Your task to perform on an android device: open chrome privacy settings Image 0: 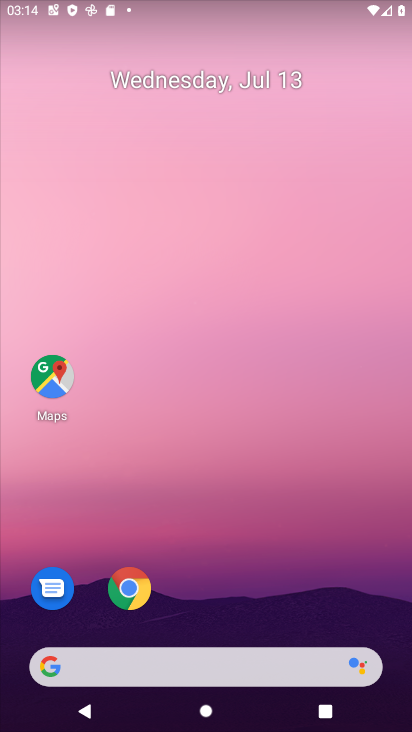
Step 0: click (123, 585)
Your task to perform on an android device: open chrome privacy settings Image 1: 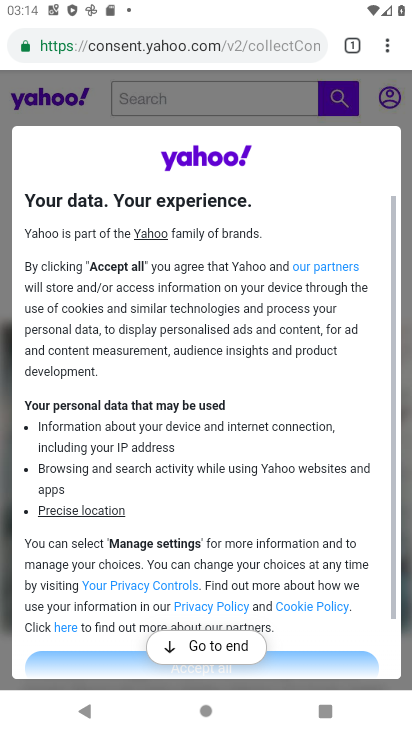
Step 1: click (380, 41)
Your task to perform on an android device: open chrome privacy settings Image 2: 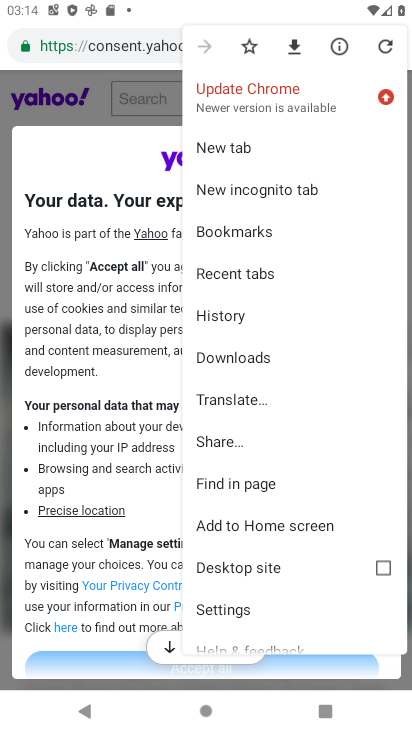
Step 2: click (229, 602)
Your task to perform on an android device: open chrome privacy settings Image 3: 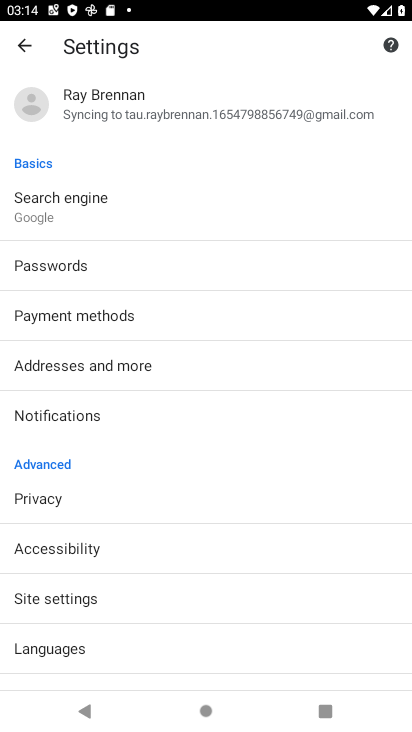
Step 3: click (34, 494)
Your task to perform on an android device: open chrome privacy settings Image 4: 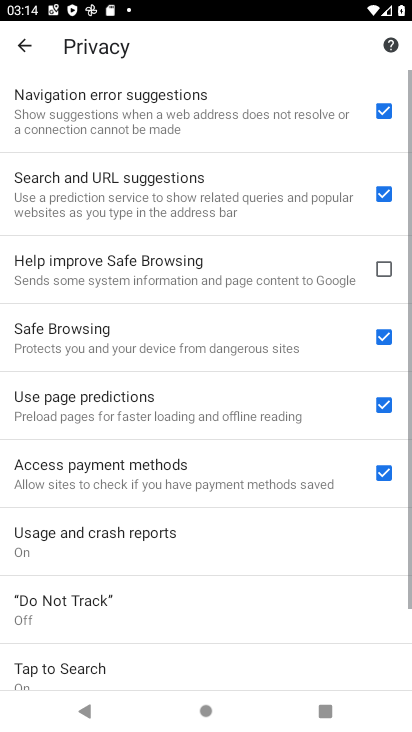
Step 4: task complete